Your task to perform on an android device: Open the stopwatch Image 0: 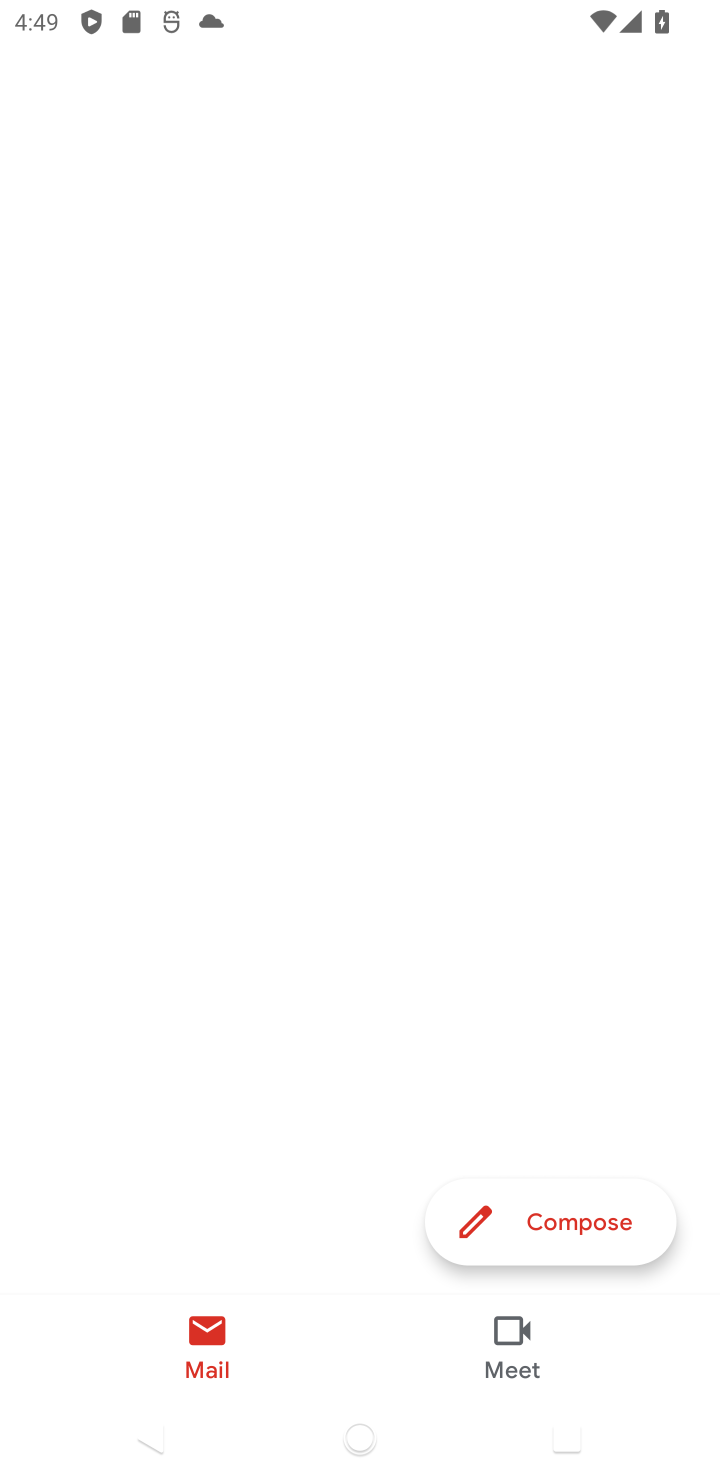
Step 0: press back button
Your task to perform on an android device: Open the stopwatch Image 1: 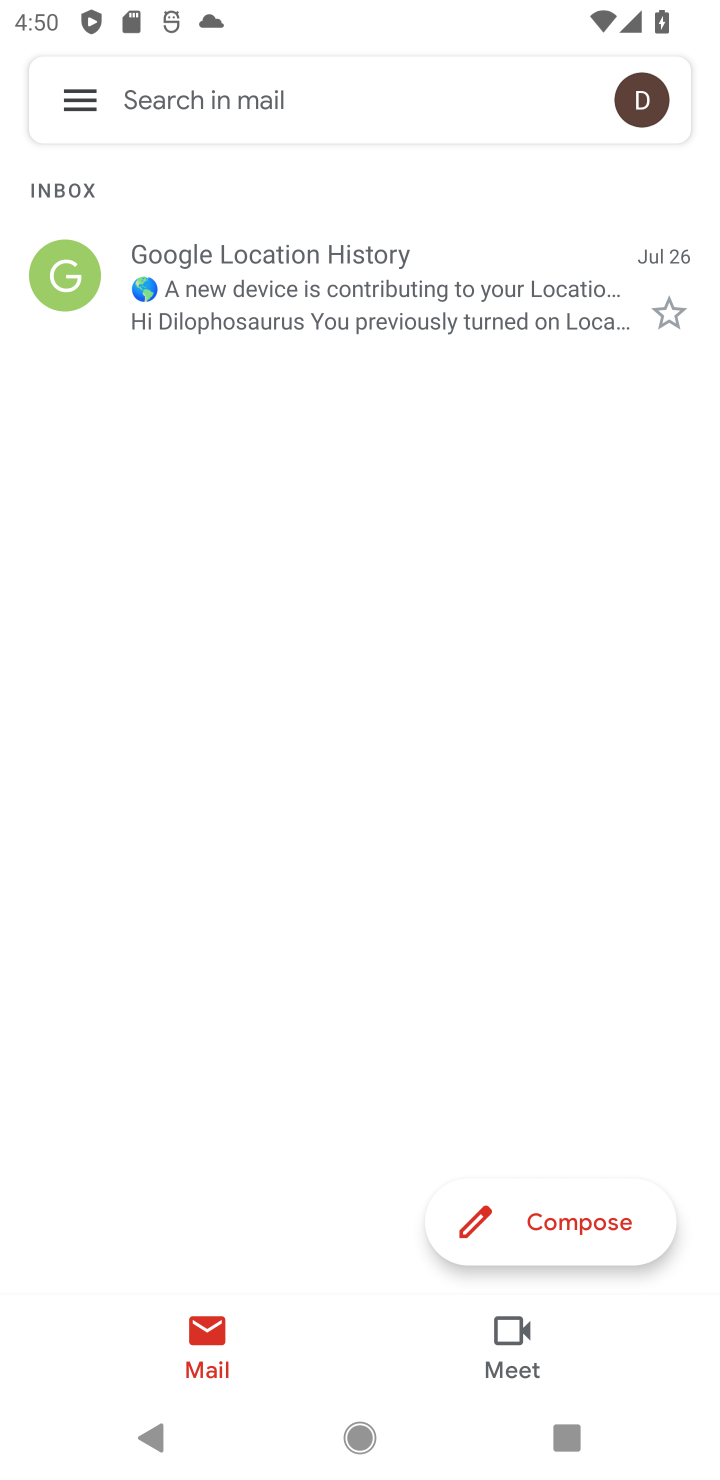
Step 1: press home button
Your task to perform on an android device: Open the stopwatch Image 2: 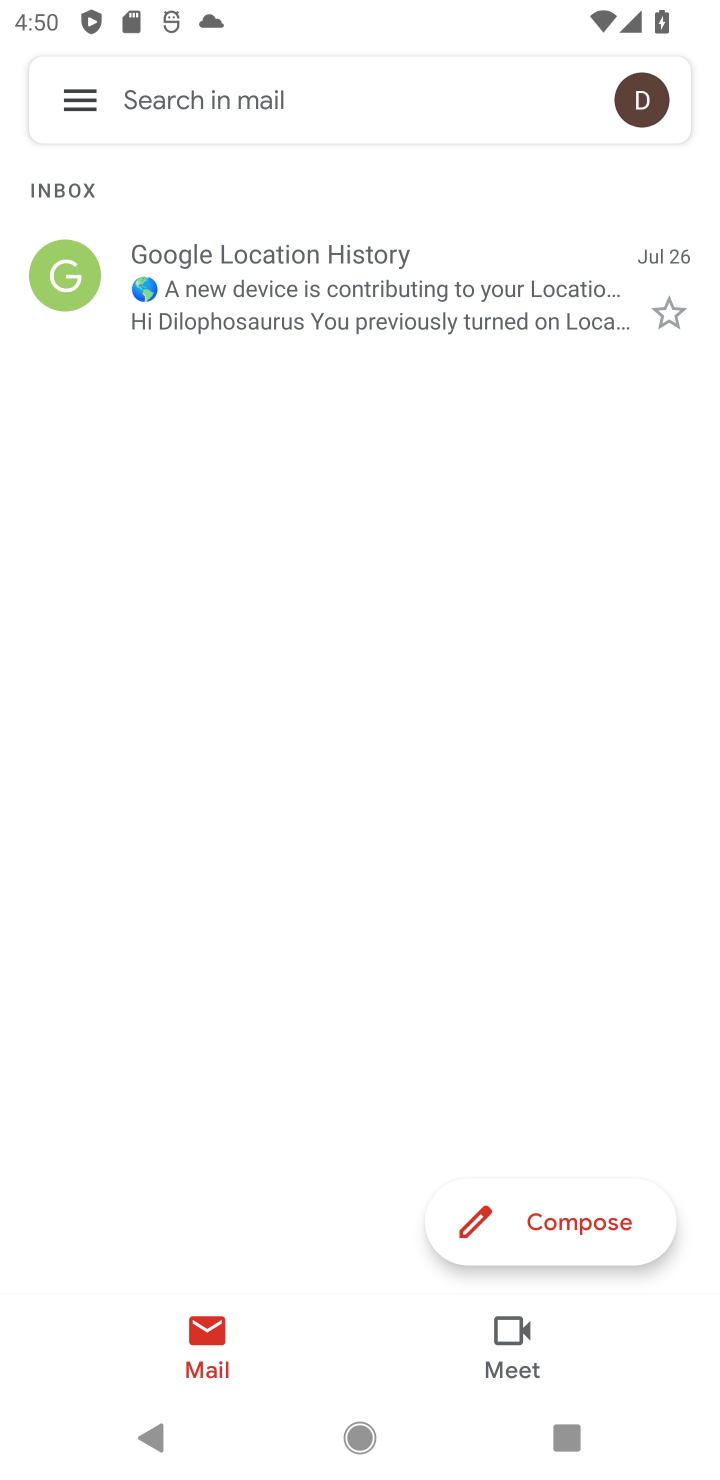
Step 2: press back button
Your task to perform on an android device: Open the stopwatch Image 3: 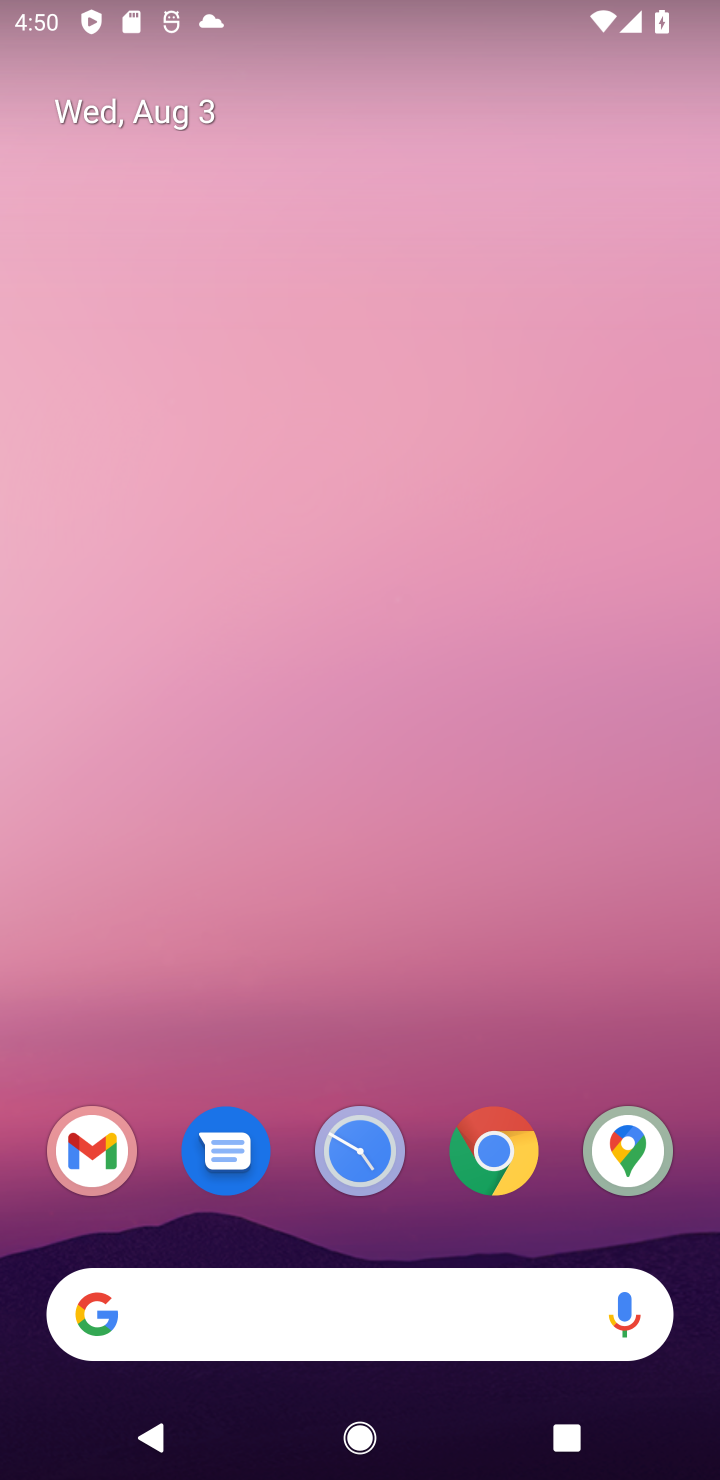
Step 3: drag from (359, 1071) to (279, 365)
Your task to perform on an android device: Open the stopwatch Image 4: 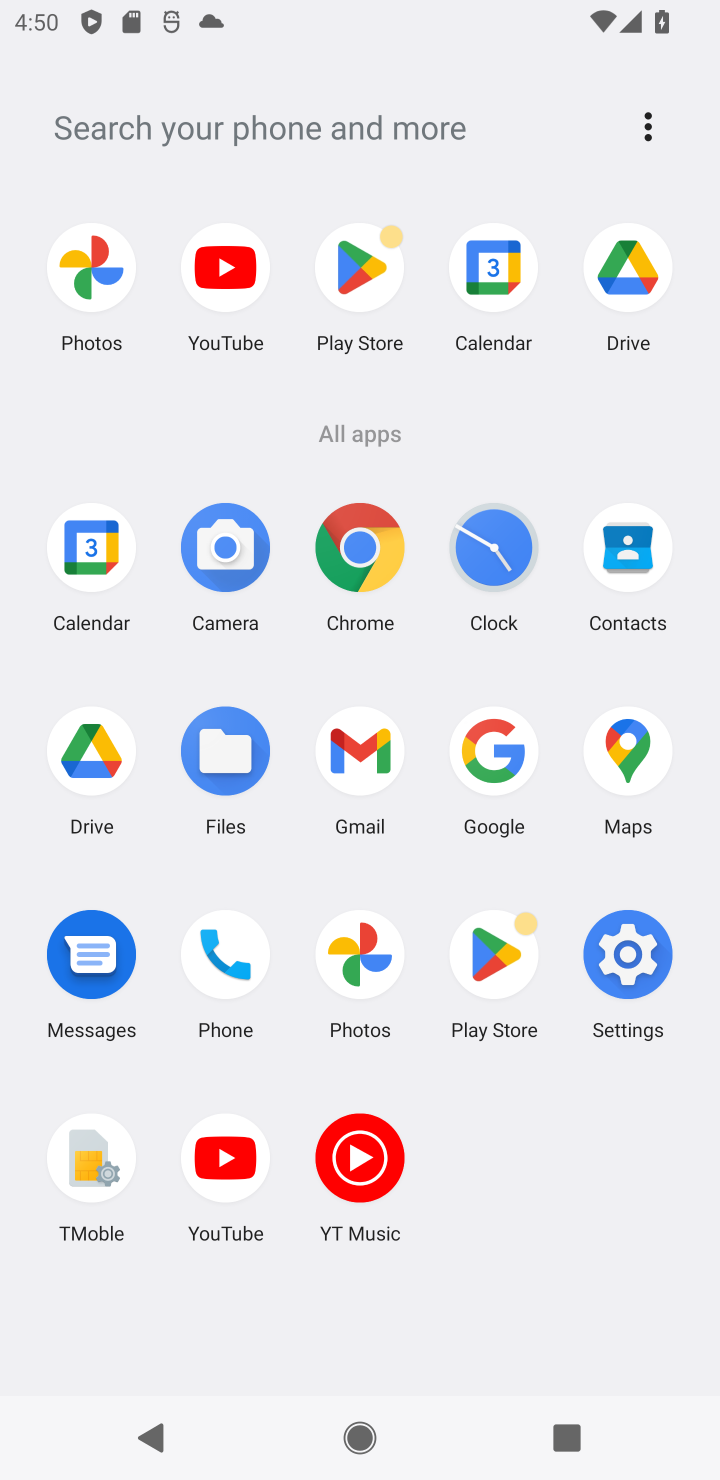
Step 4: click (499, 533)
Your task to perform on an android device: Open the stopwatch Image 5: 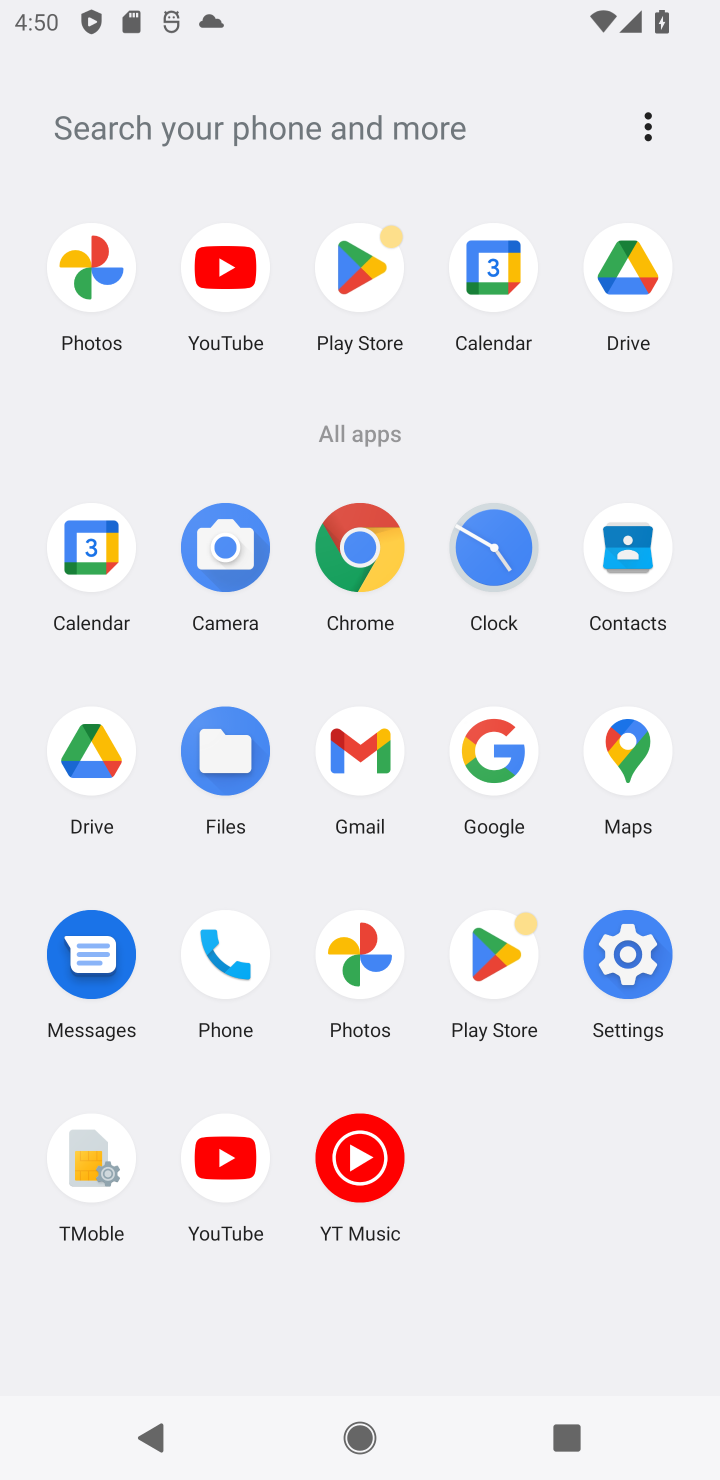
Step 5: click (502, 531)
Your task to perform on an android device: Open the stopwatch Image 6: 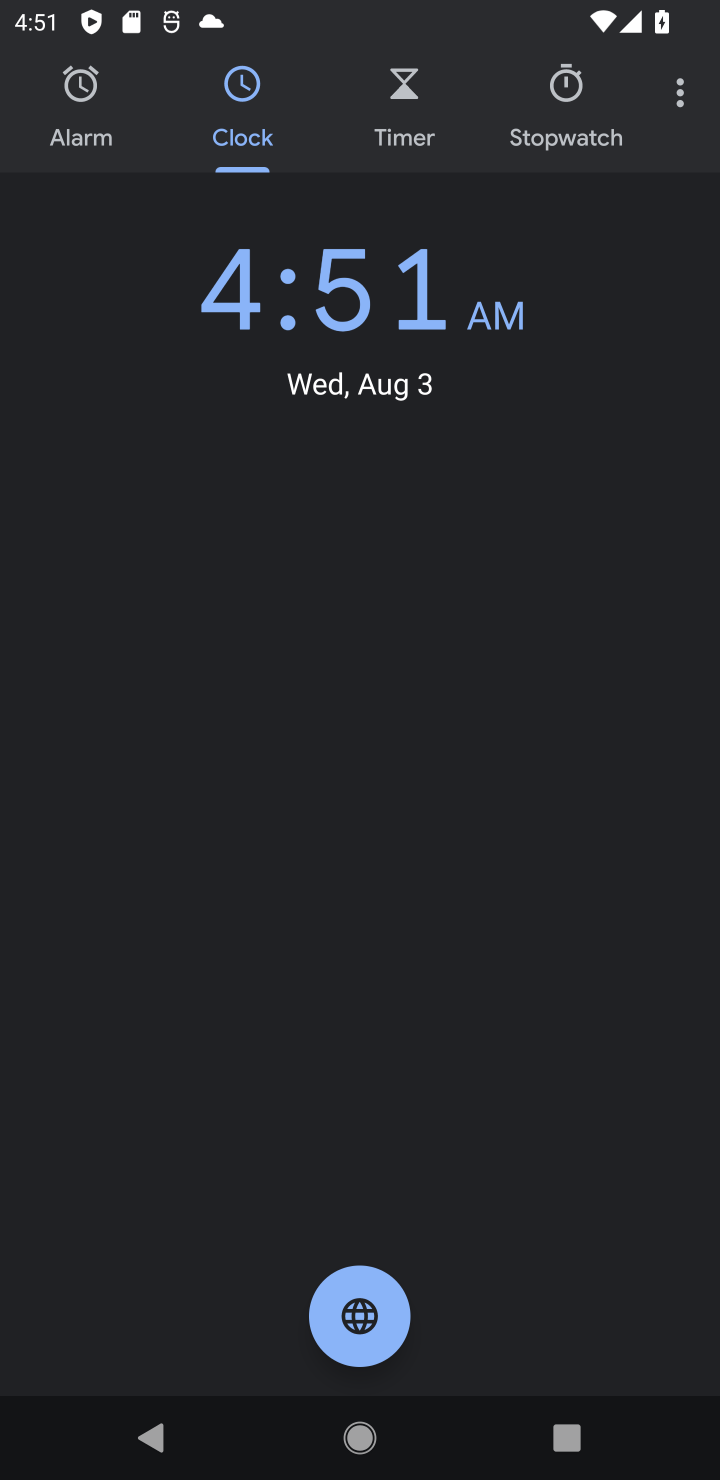
Step 6: click (543, 120)
Your task to perform on an android device: Open the stopwatch Image 7: 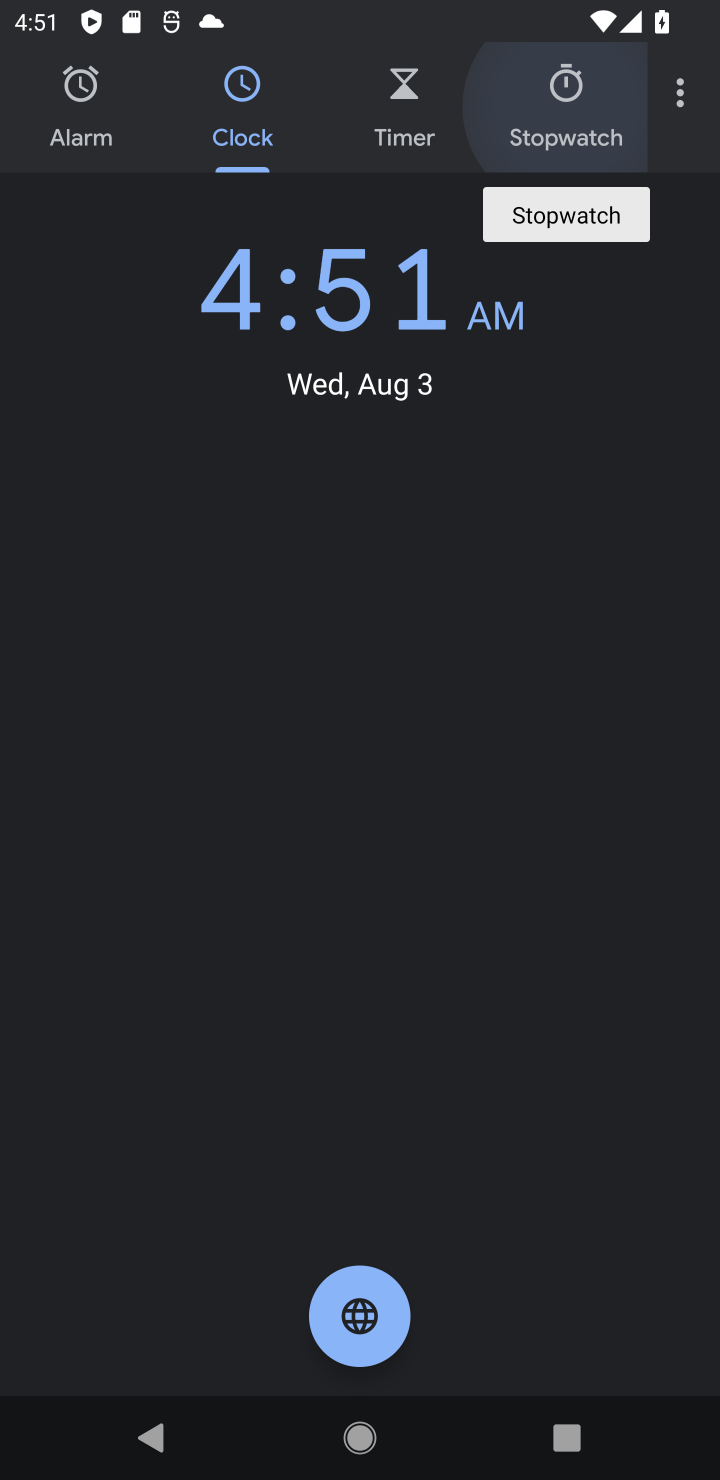
Step 7: click (543, 122)
Your task to perform on an android device: Open the stopwatch Image 8: 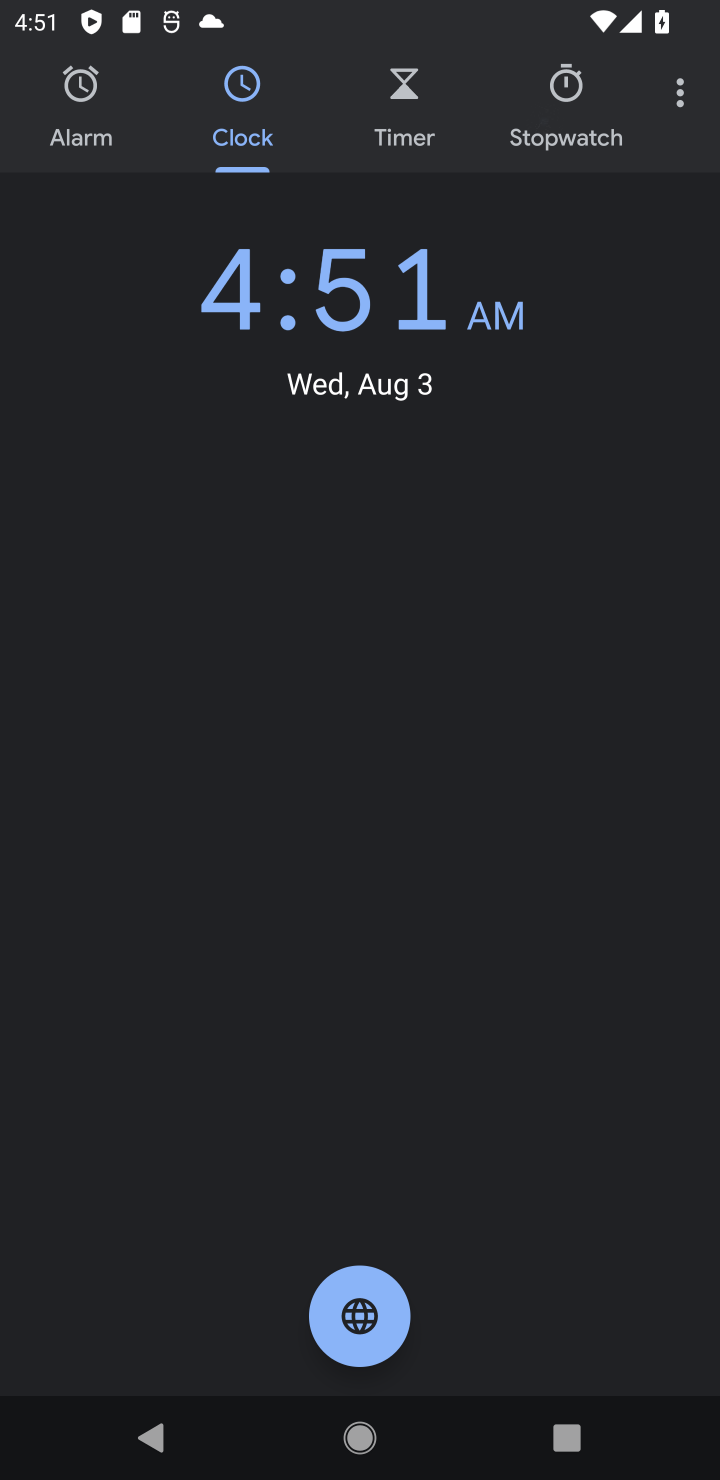
Step 8: click (532, 138)
Your task to perform on an android device: Open the stopwatch Image 9: 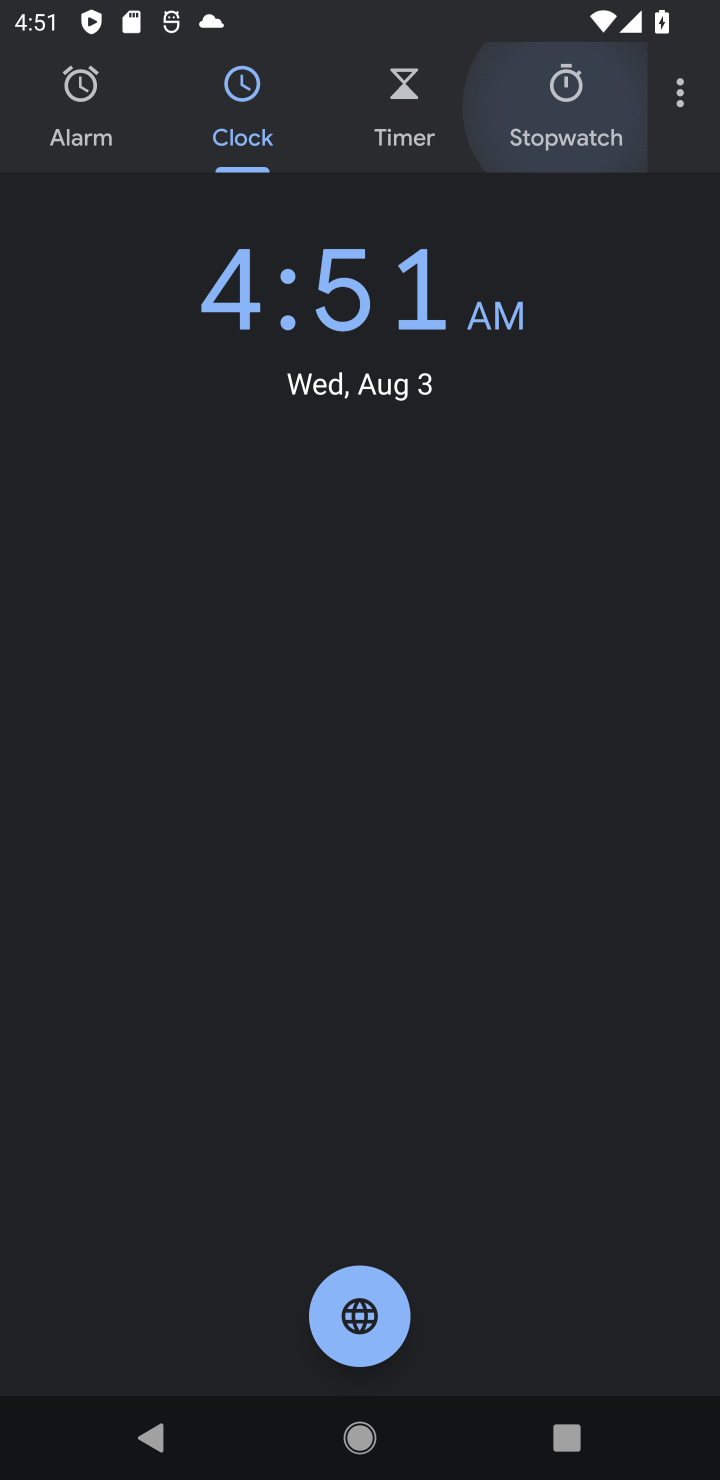
Step 9: click (549, 101)
Your task to perform on an android device: Open the stopwatch Image 10: 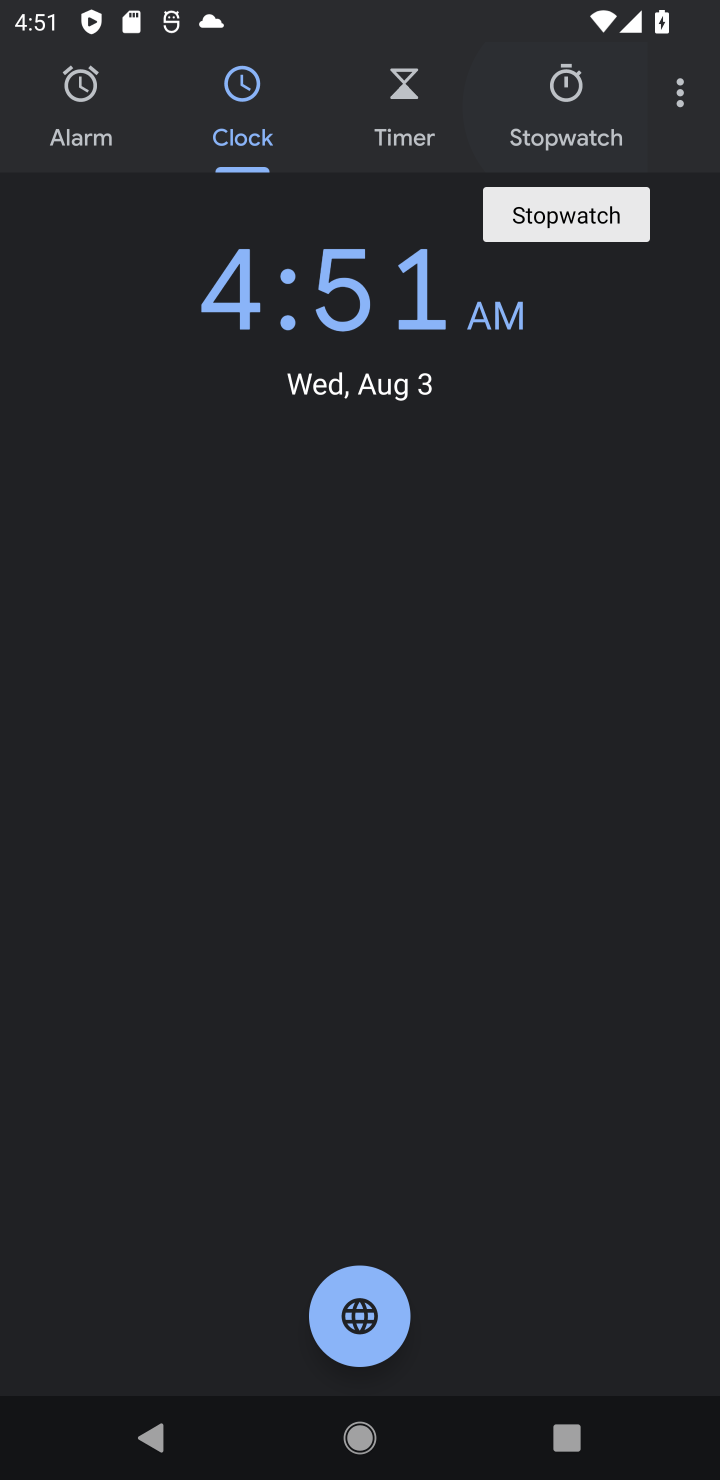
Step 10: click (565, 87)
Your task to perform on an android device: Open the stopwatch Image 11: 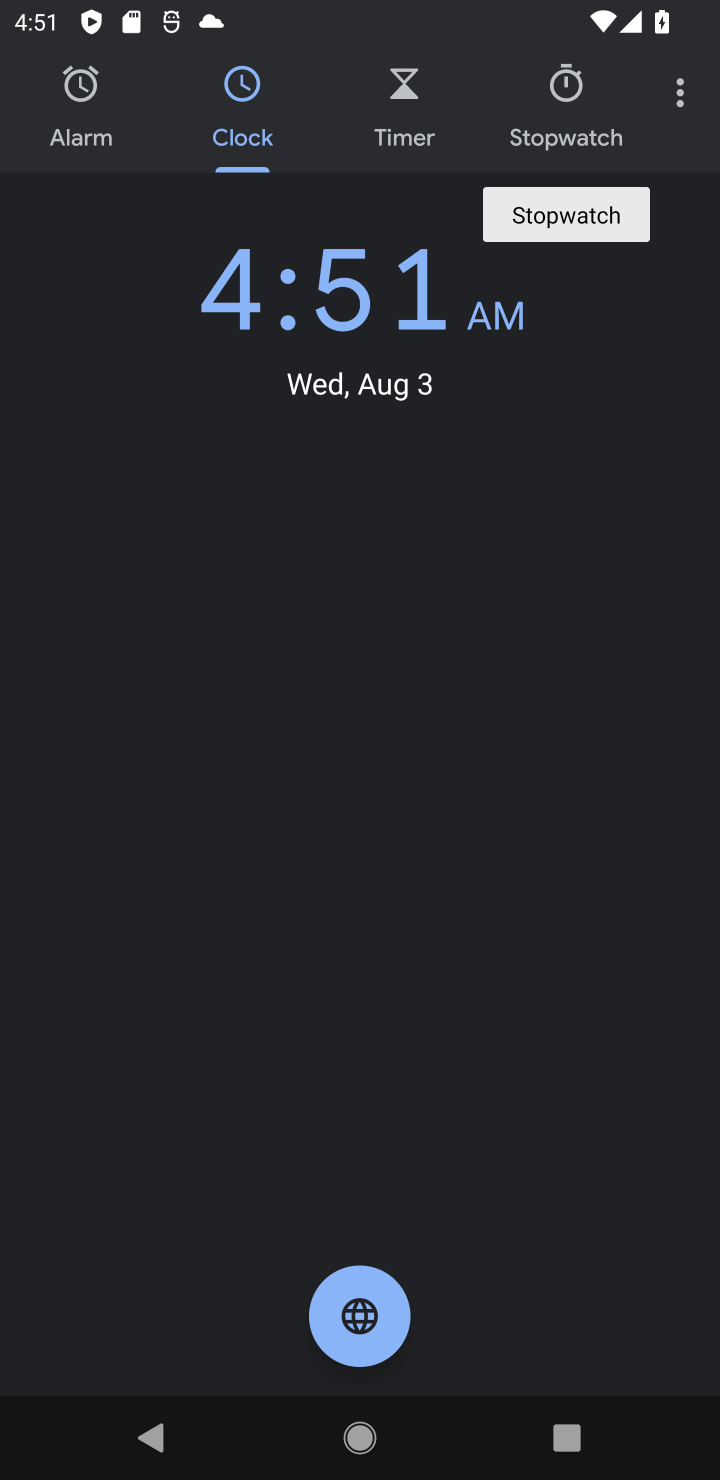
Step 11: click (564, 87)
Your task to perform on an android device: Open the stopwatch Image 12: 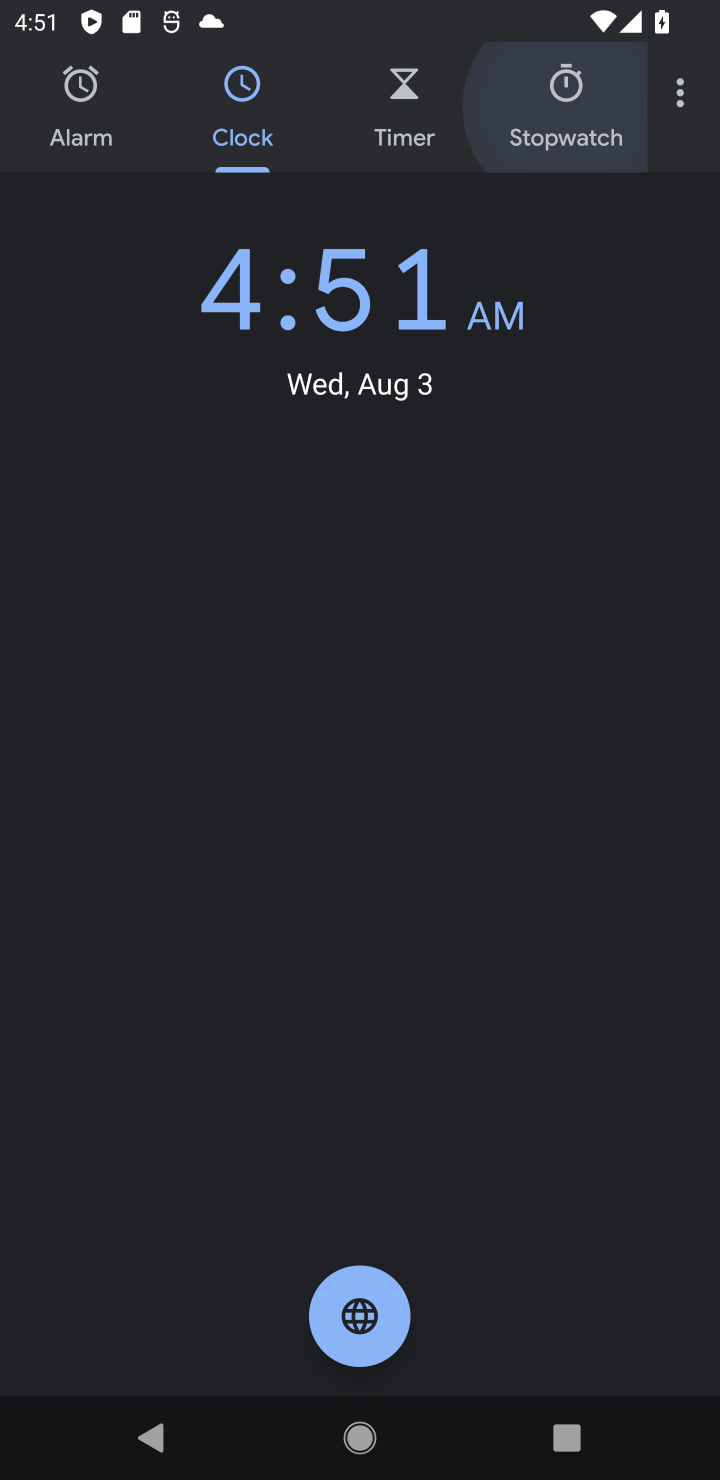
Step 12: click (564, 87)
Your task to perform on an android device: Open the stopwatch Image 13: 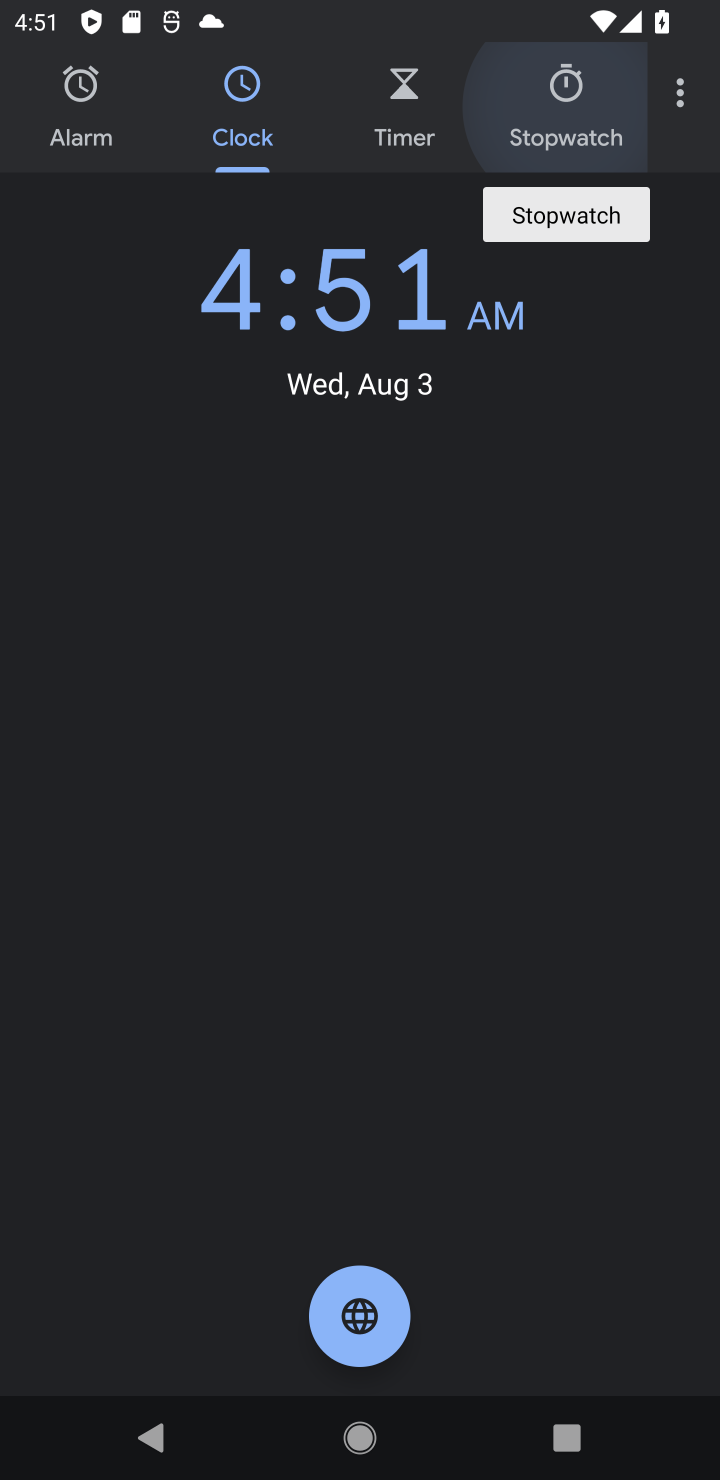
Step 13: click (566, 159)
Your task to perform on an android device: Open the stopwatch Image 14: 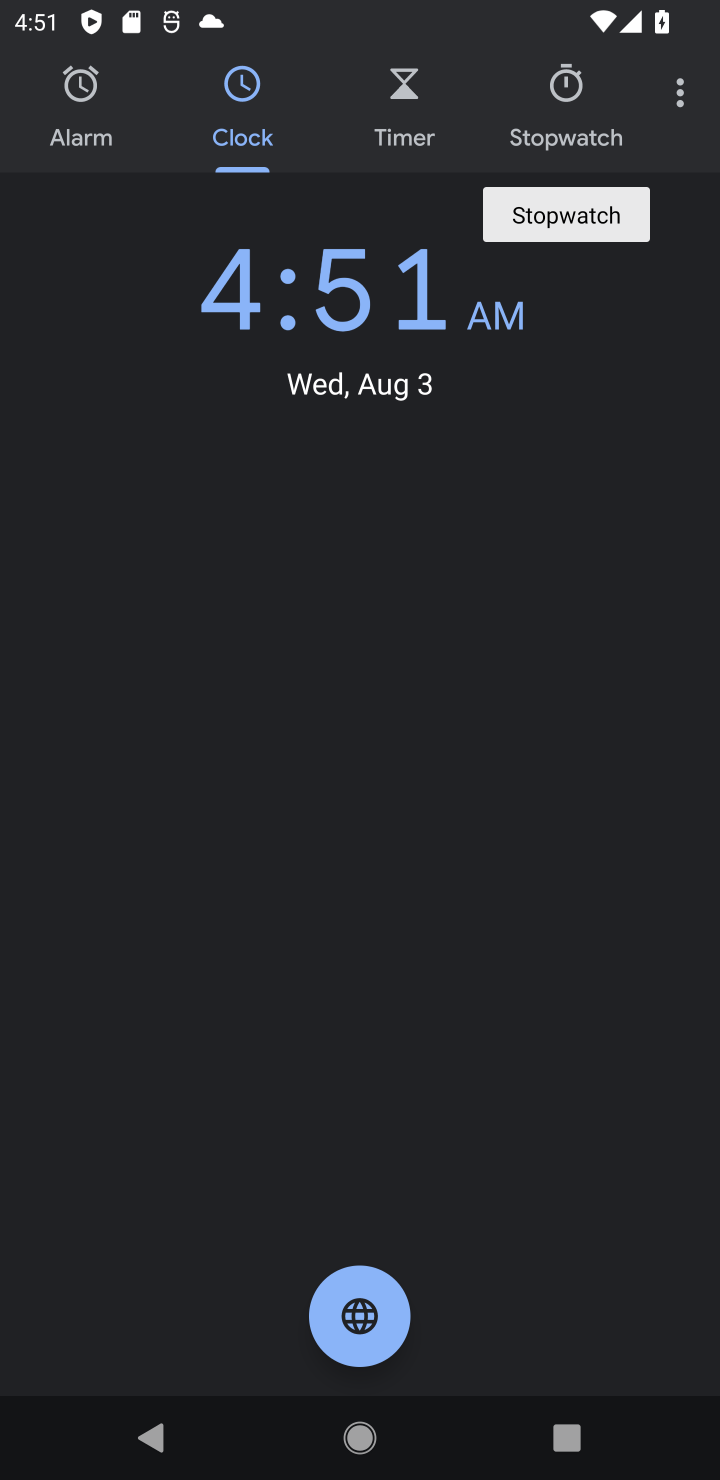
Step 14: click (579, 146)
Your task to perform on an android device: Open the stopwatch Image 15: 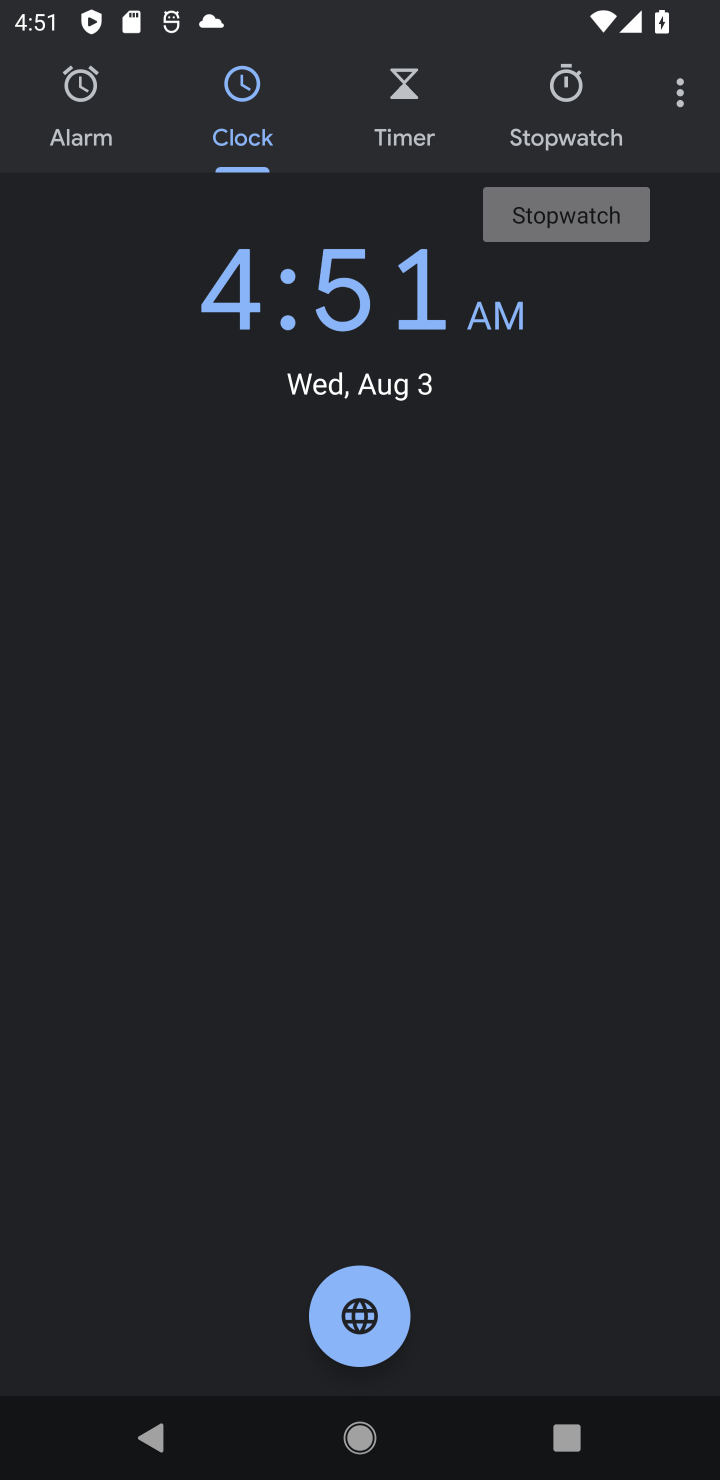
Step 15: click (585, 211)
Your task to perform on an android device: Open the stopwatch Image 16: 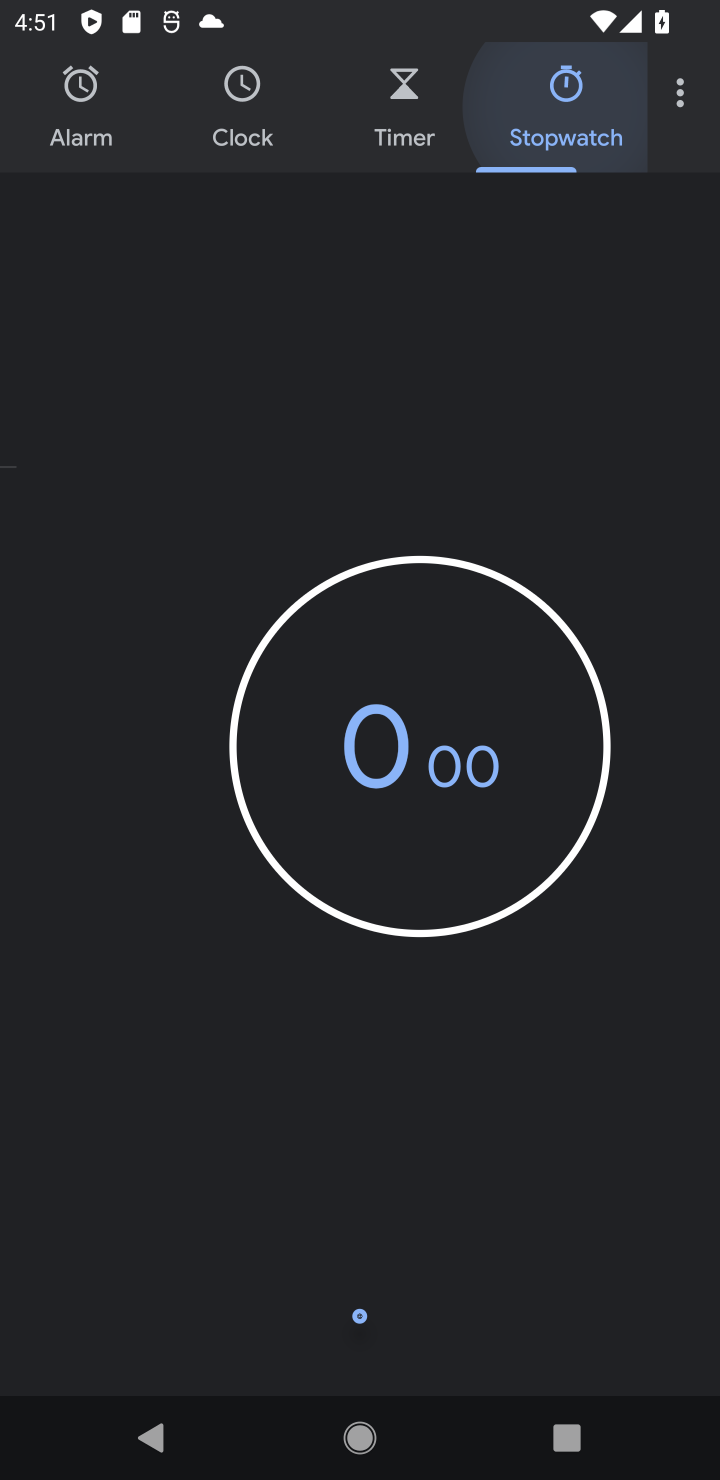
Step 16: click (587, 211)
Your task to perform on an android device: Open the stopwatch Image 17: 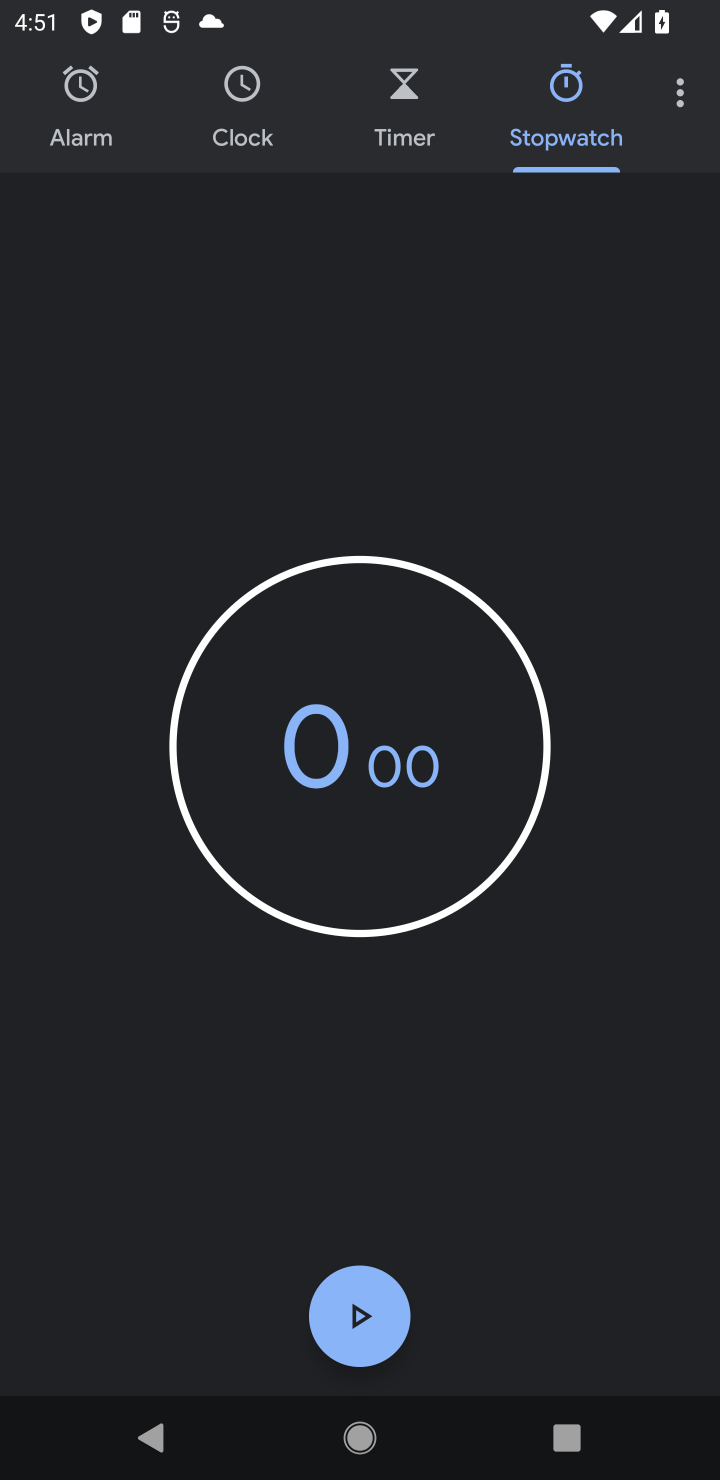
Step 17: click (364, 1317)
Your task to perform on an android device: Open the stopwatch Image 18: 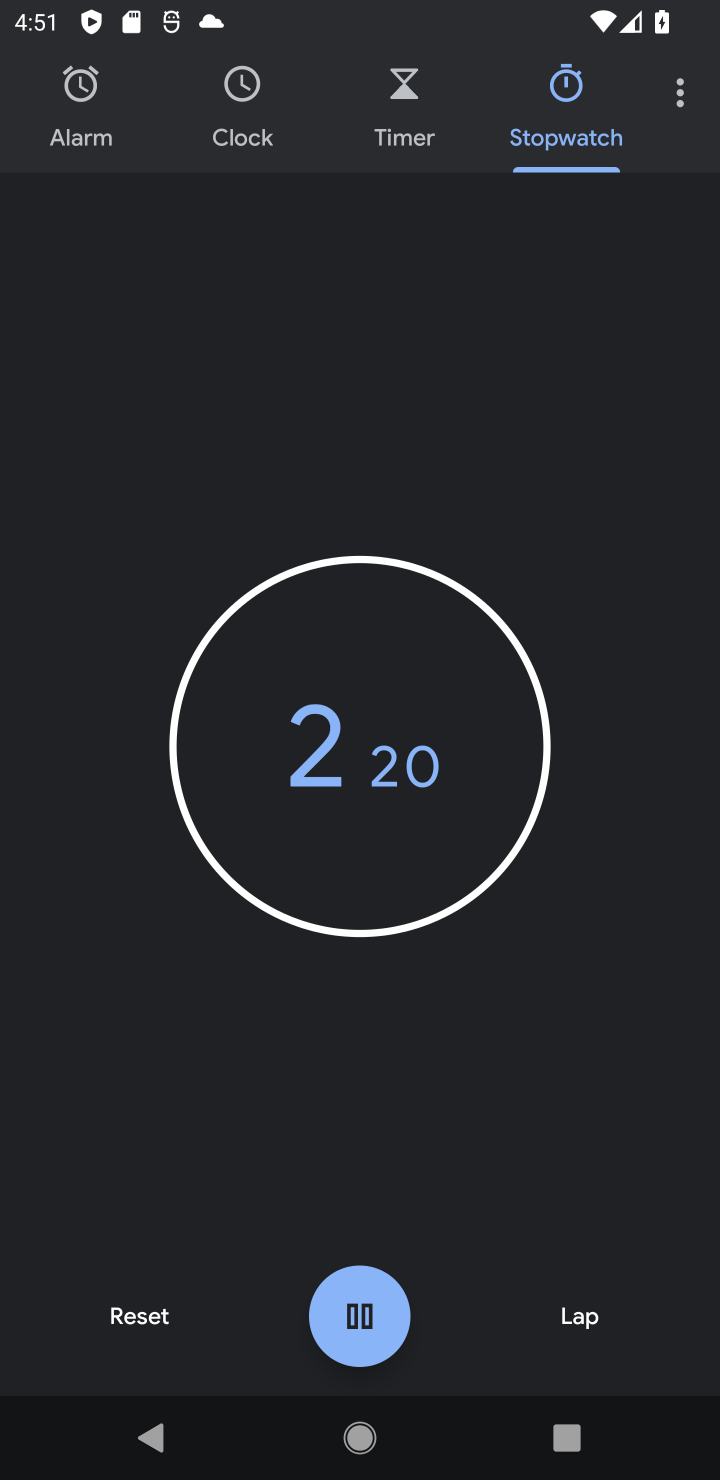
Step 18: click (352, 1326)
Your task to perform on an android device: Open the stopwatch Image 19: 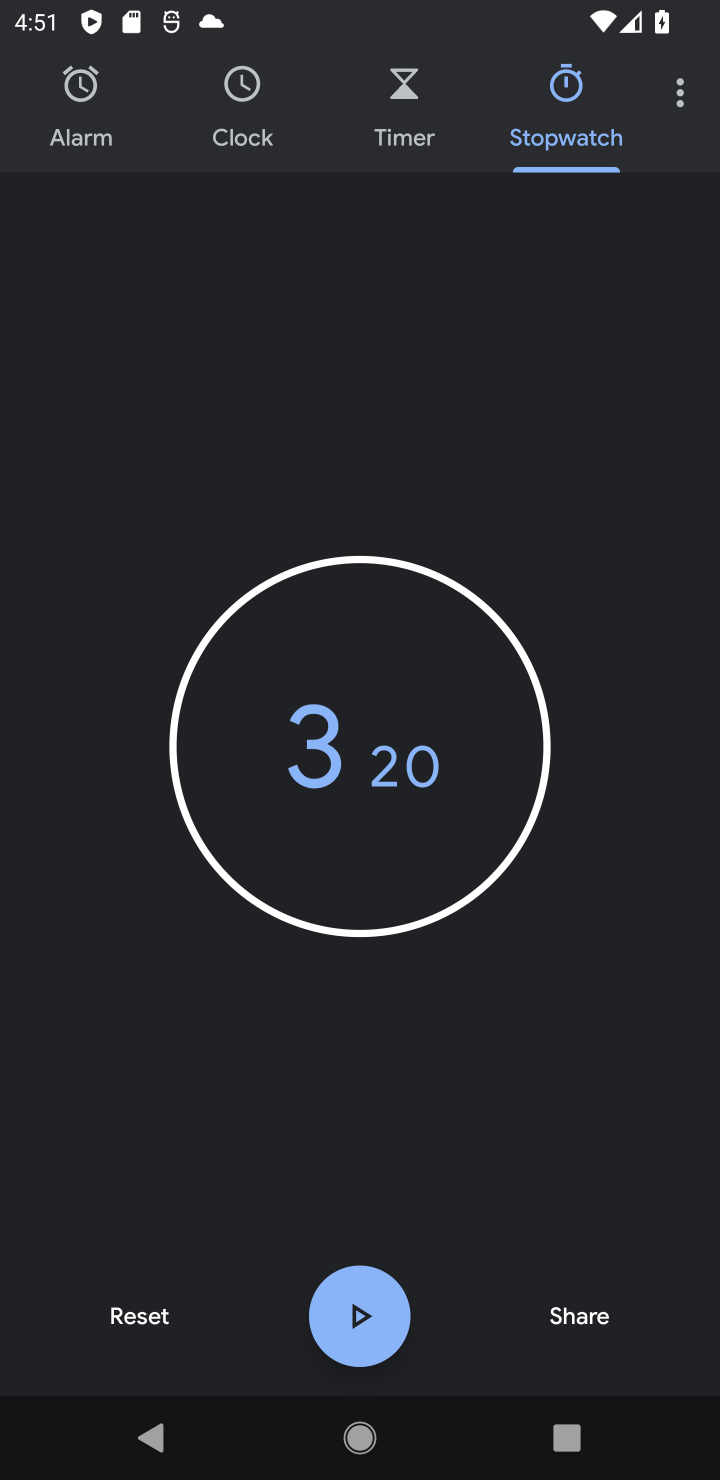
Step 19: task complete